Your task to perform on an android device: star an email in the gmail app Image 0: 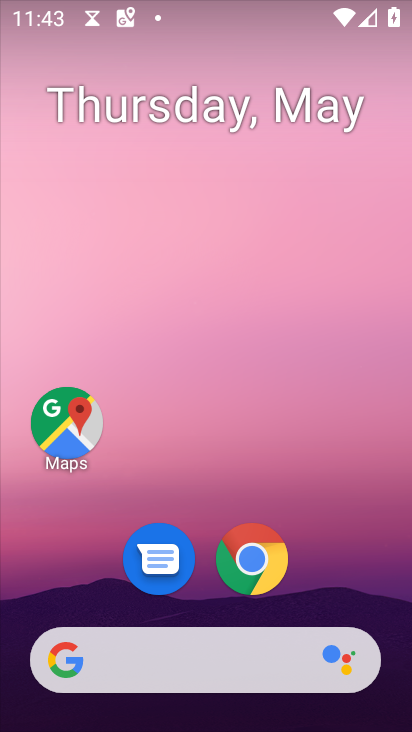
Step 0: drag from (212, 694) to (192, 226)
Your task to perform on an android device: star an email in the gmail app Image 1: 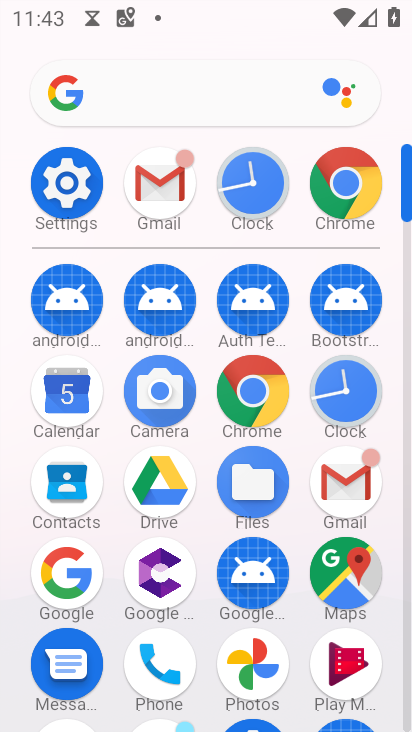
Step 1: click (162, 186)
Your task to perform on an android device: star an email in the gmail app Image 2: 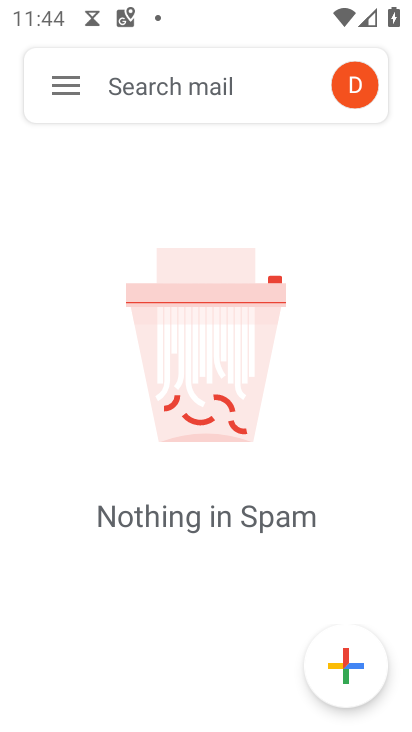
Step 2: click (59, 92)
Your task to perform on an android device: star an email in the gmail app Image 3: 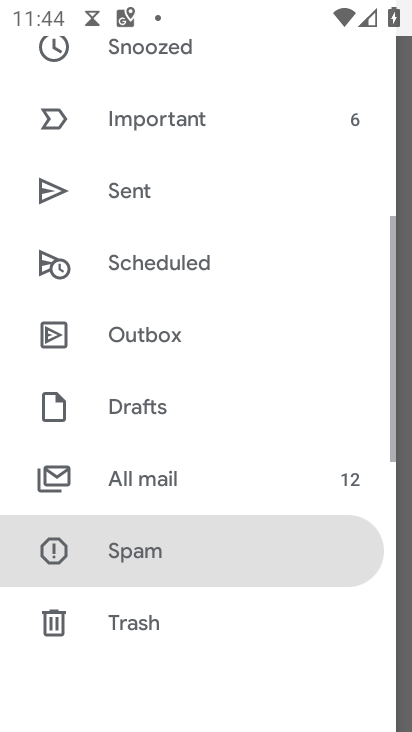
Step 3: drag from (177, 100) to (183, 498)
Your task to perform on an android device: star an email in the gmail app Image 4: 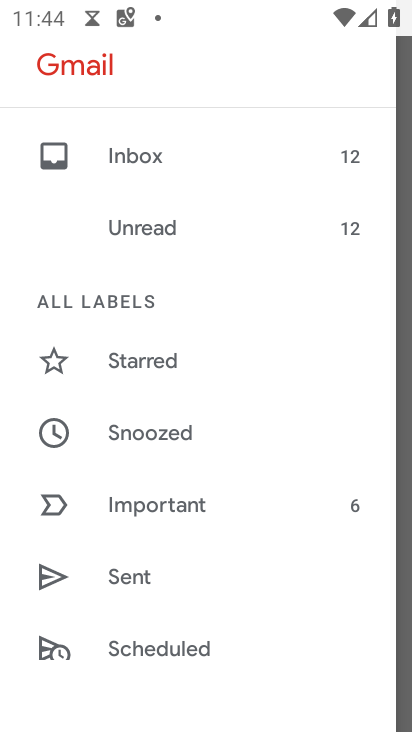
Step 4: click (149, 147)
Your task to perform on an android device: star an email in the gmail app Image 5: 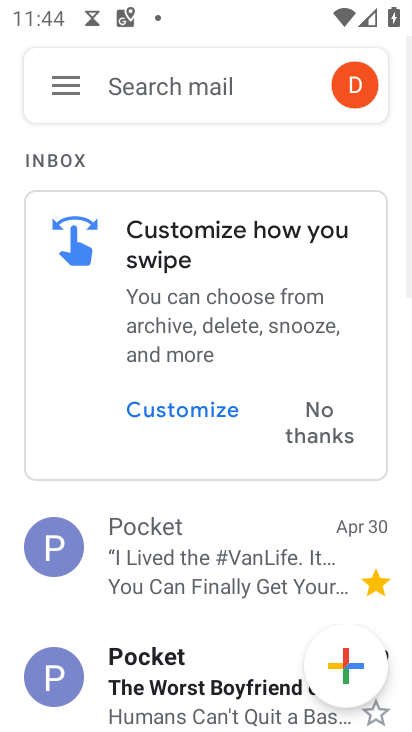
Step 5: drag from (227, 660) to (229, 483)
Your task to perform on an android device: star an email in the gmail app Image 6: 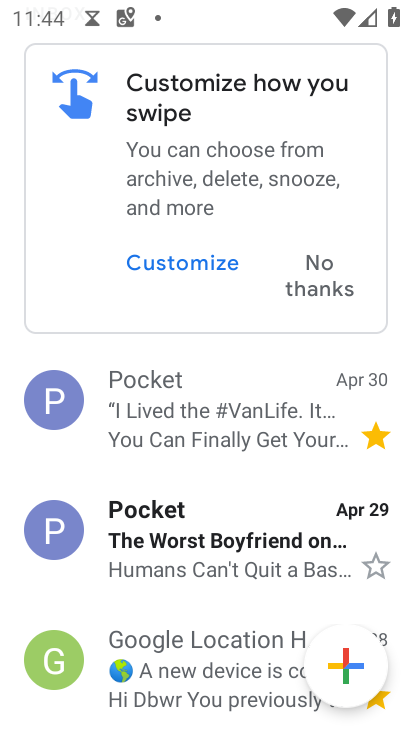
Step 6: click (379, 563)
Your task to perform on an android device: star an email in the gmail app Image 7: 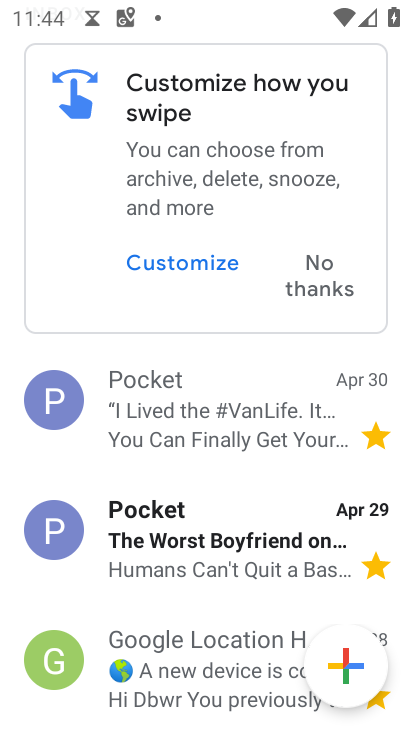
Step 7: task complete